Your task to perform on an android device: Go to location settings Image 0: 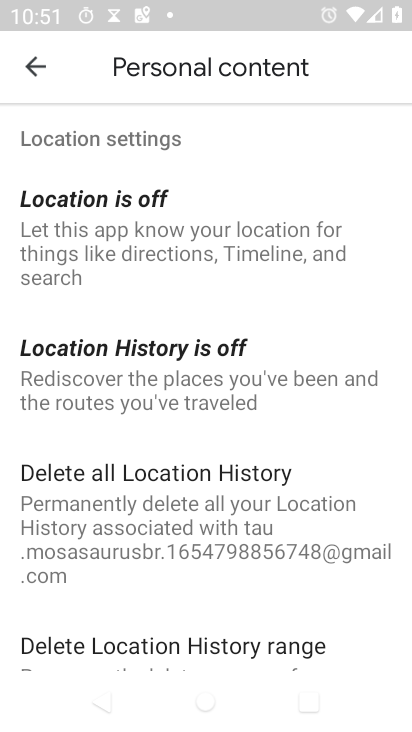
Step 0: press home button
Your task to perform on an android device: Go to location settings Image 1: 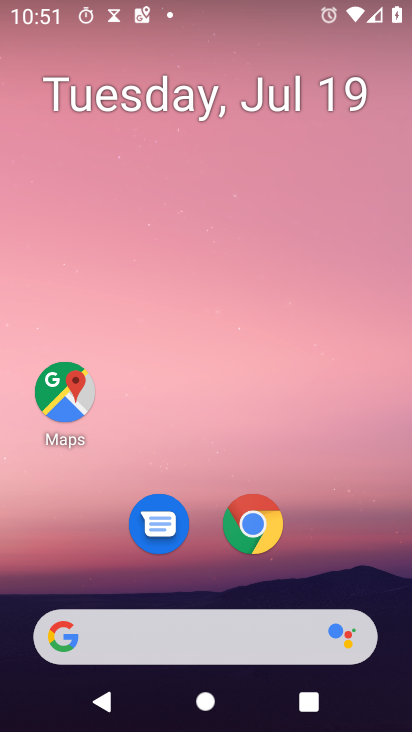
Step 1: drag from (191, 633) to (291, 112)
Your task to perform on an android device: Go to location settings Image 2: 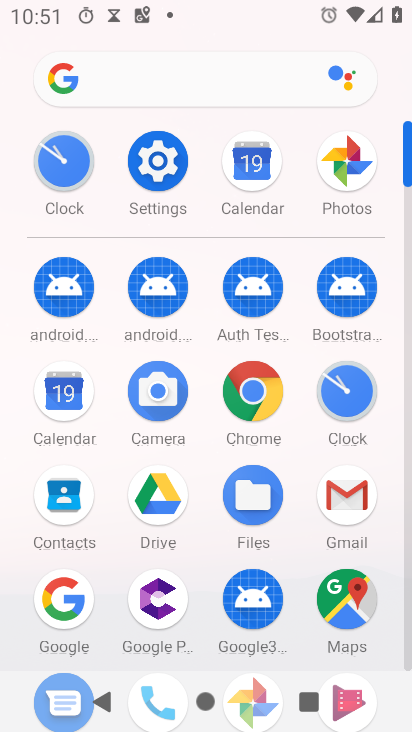
Step 2: click (167, 163)
Your task to perform on an android device: Go to location settings Image 3: 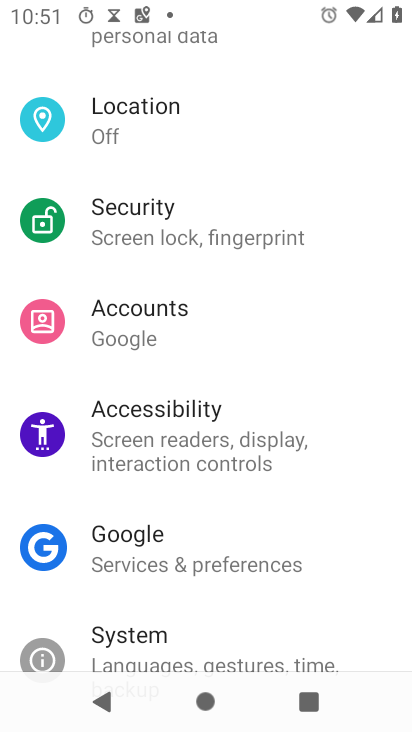
Step 3: drag from (220, 598) to (321, 89)
Your task to perform on an android device: Go to location settings Image 4: 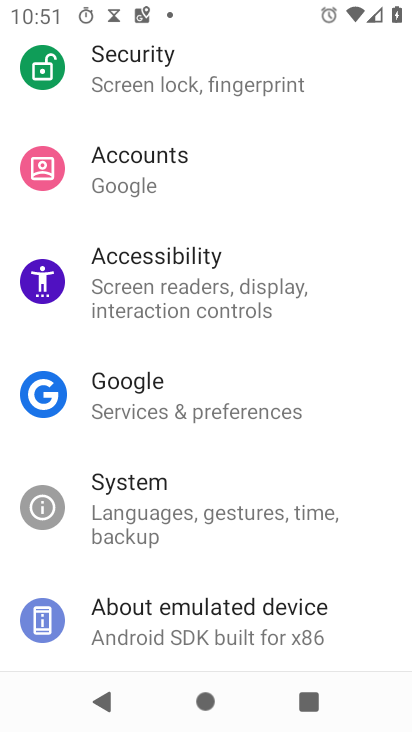
Step 4: drag from (189, 564) to (326, 111)
Your task to perform on an android device: Go to location settings Image 5: 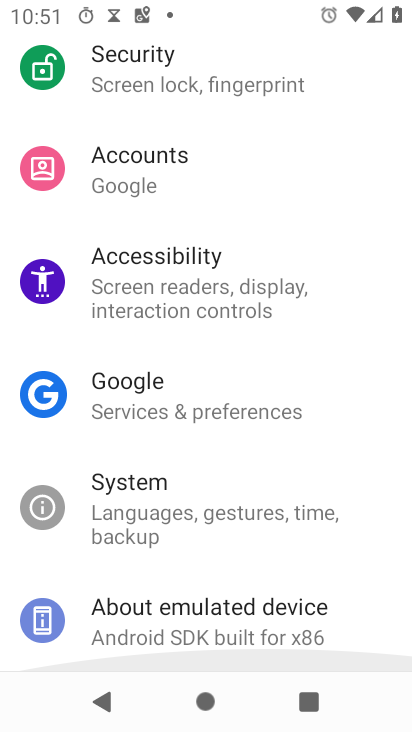
Step 5: drag from (300, 137) to (300, 510)
Your task to perform on an android device: Go to location settings Image 6: 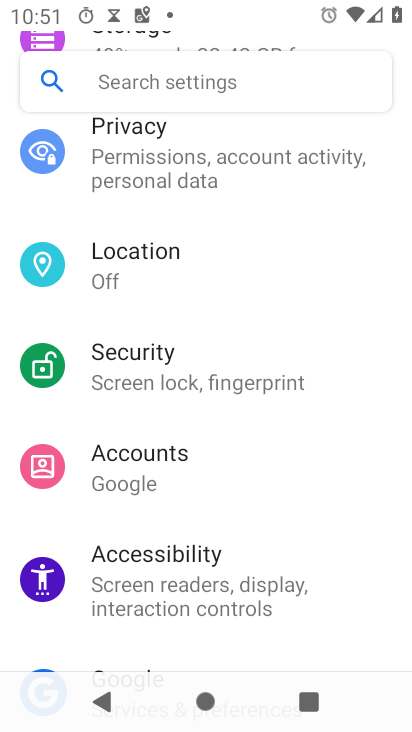
Step 6: click (132, 258)
Your task to perform on an android device: Go to location settings Image 7: 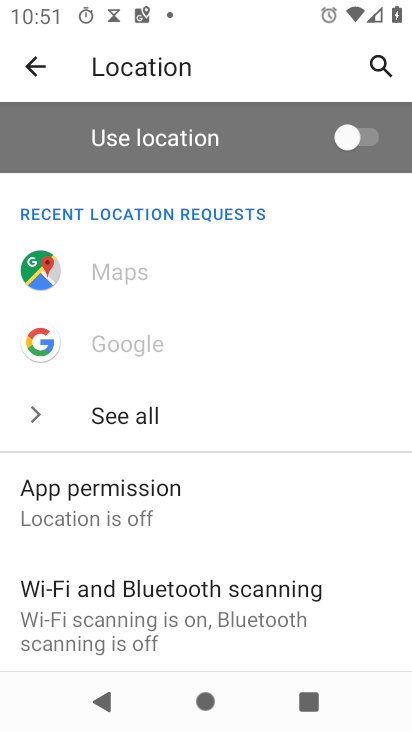
Step 7: task complete